Your task to perform on an android device: open chrome privacy settings Image 0: 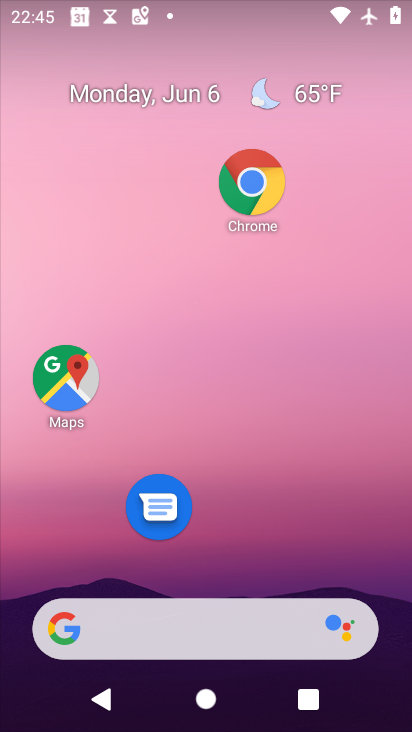
Step 0: click (262, 158)
Your task to perform on an android device: open chrome privacy settings Image 1: 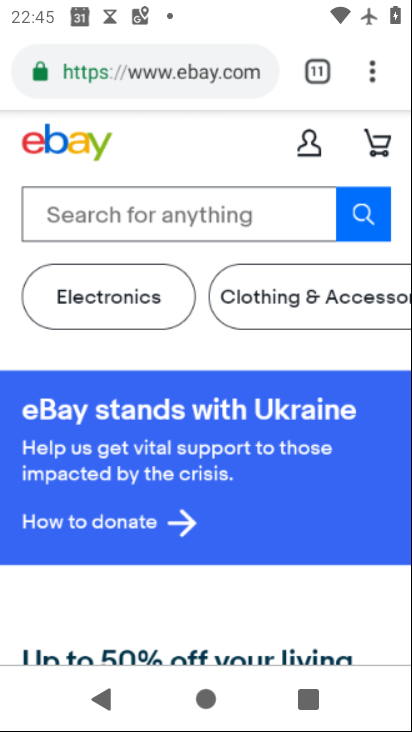
Step 1: click (259, 184)
Your task to perform on an android device: open chrome privacy settings Image 2: 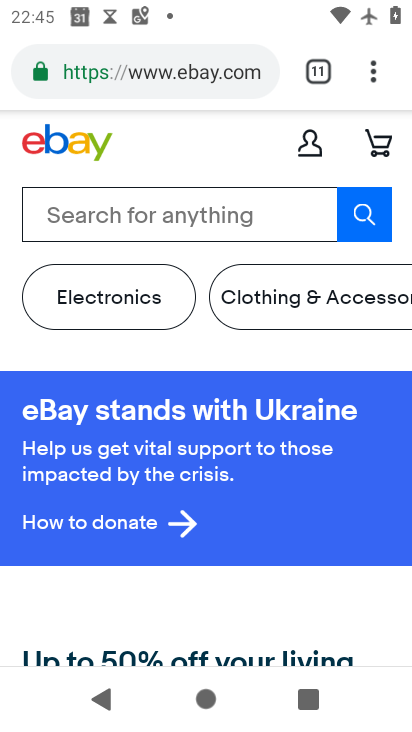
Step 2: click (367, 64)
Your task to perform on an android device: open chrome privacy settings Image 3: 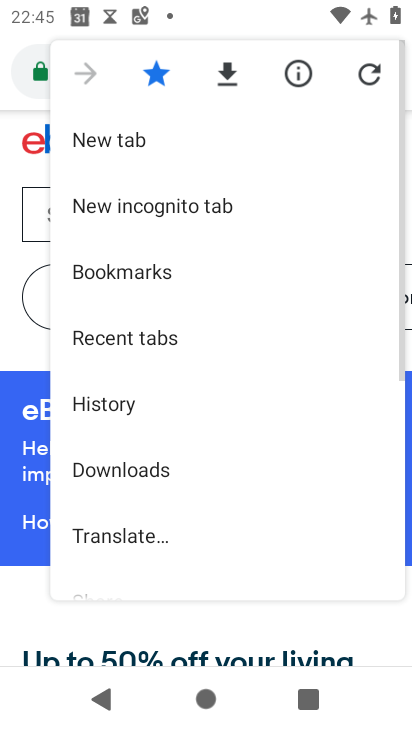
Step 3: drag from (191, 533) to (188, 172)
Your task to perform on an android device: open chrome privacy settings Image 4: 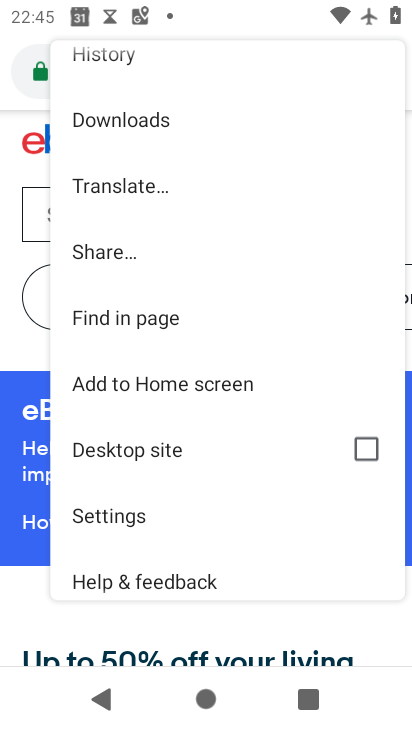
Step 4: click (153, 508)
Your task to perform on an android device: open chrome privacy settings Image 5: 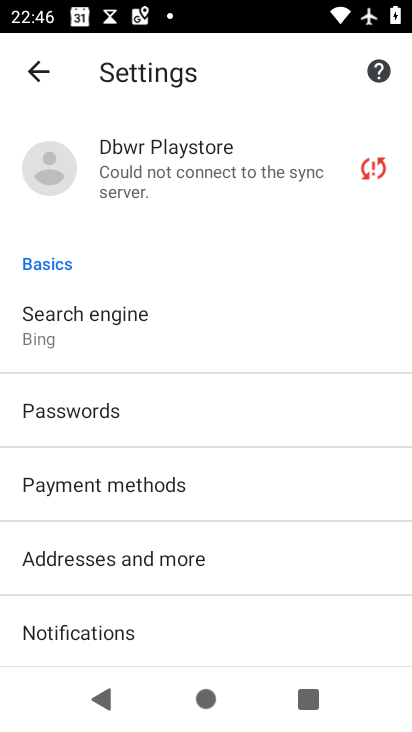
Step 5: drag from (152, 569) to (175, 281)
Your task to perform on an android device: open chrome privacy settings Image 6: 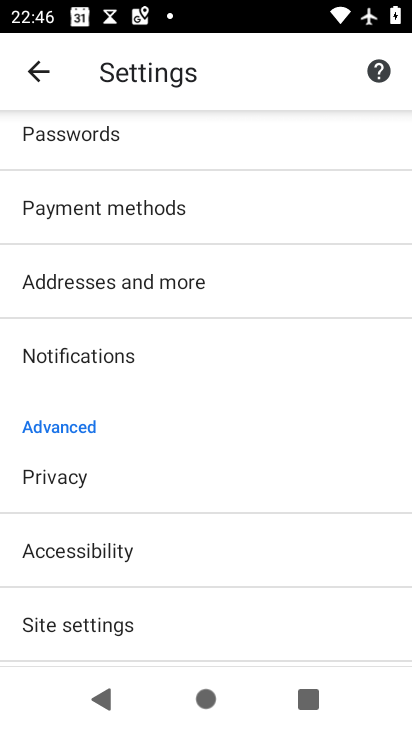
Step 6: click (115, 487)
Your task to perform on an android device: open chrome privacy settings Image 7: 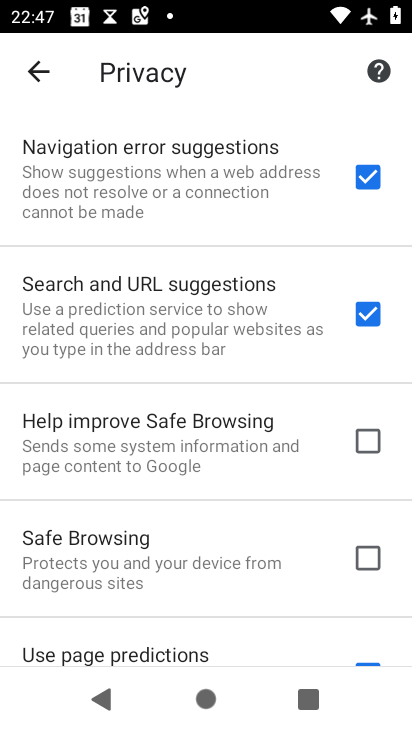
Step 7: task complete